Your task to perform on an android device: change text size in settings app Image 0: 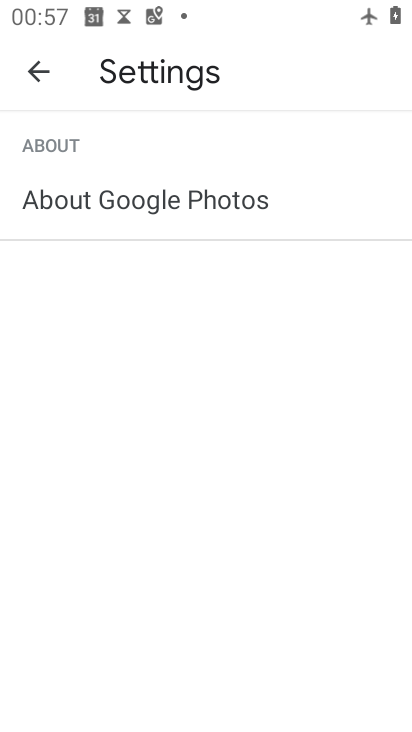
Step 0: press home button
Your task to perform on an android device: change text size in settings app Image 1: 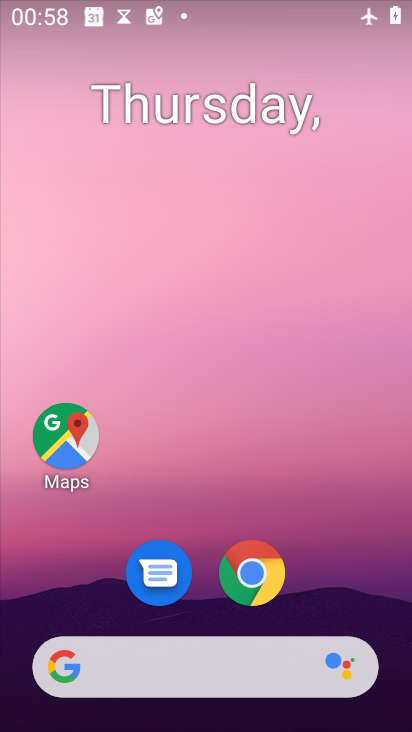
Step 1: drag from (356, 549) to (354, 303)
Your task to perform on an android device: change text size in settings app Image 2: 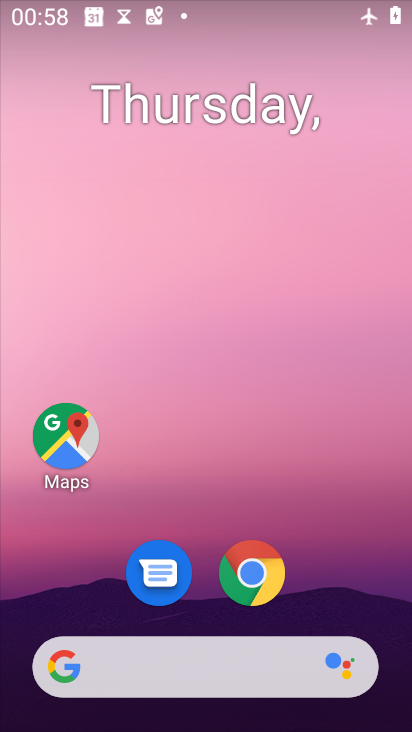
Step 2: drag from (311, 470) to (320, 103)
Your task to perform on an android device: change text size in settings app Image 3: 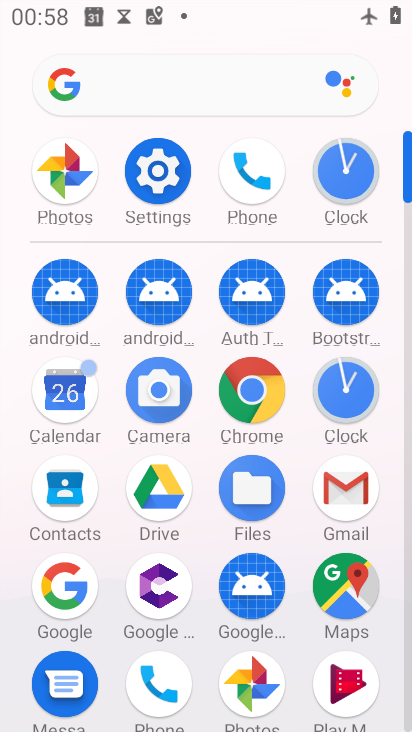
Step 3: click (145, 170)
Your task to perform on an android device: change text size in settings app Image 4: 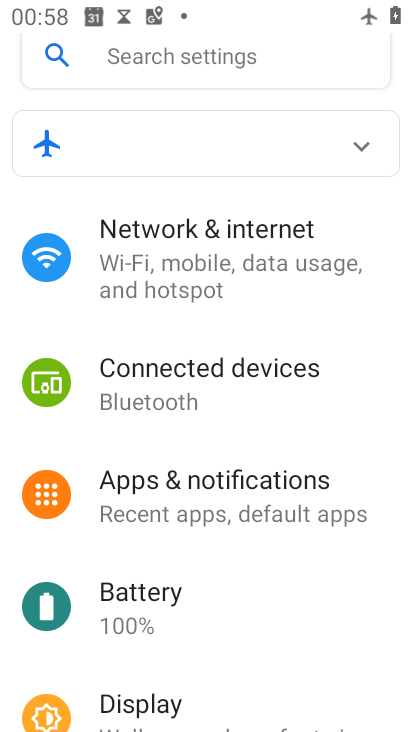
Step 4: drag from (236, 595) to (255, 228)
Your task to perform on an android device: change text size in settings app Image 5: 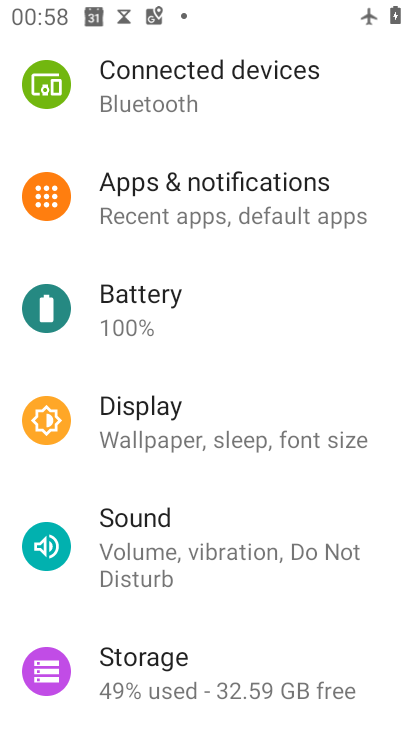
Step 5: drag from (249, 618) to (266, 169)
Your task to perform on an android device: change text size in settings app Image 6: 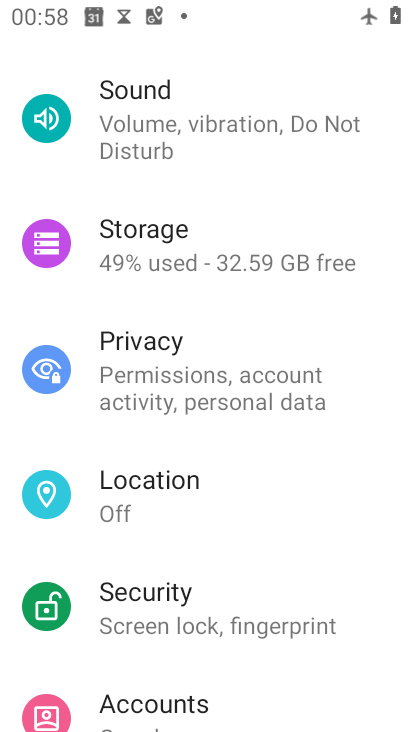
Step 6: drag from (235, 621) to (264, 241)
Your task to perform on an android device: change text size in settings app Image 7: 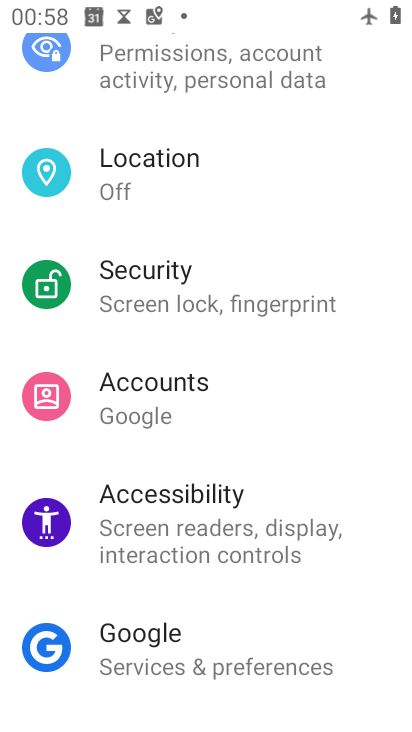
Step 7: drag from (219, 618) to (221, 382)
Your task to perform on an android device: change text size in settings app Image 8: 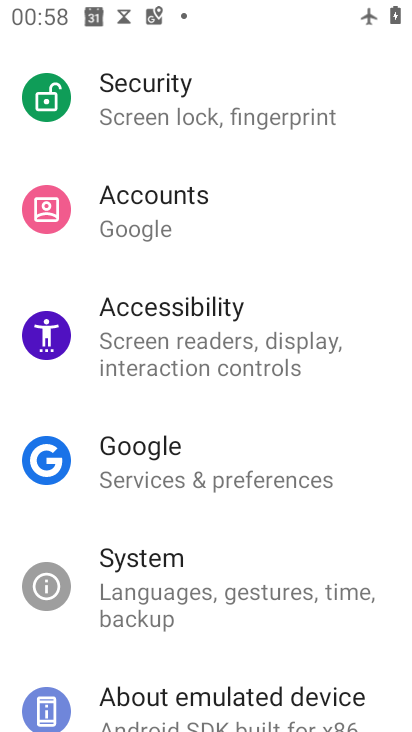
Step 8: drag from (190, 685) to (206, 498)
Your task to perform on an android device: change text size in settings app Image 9: 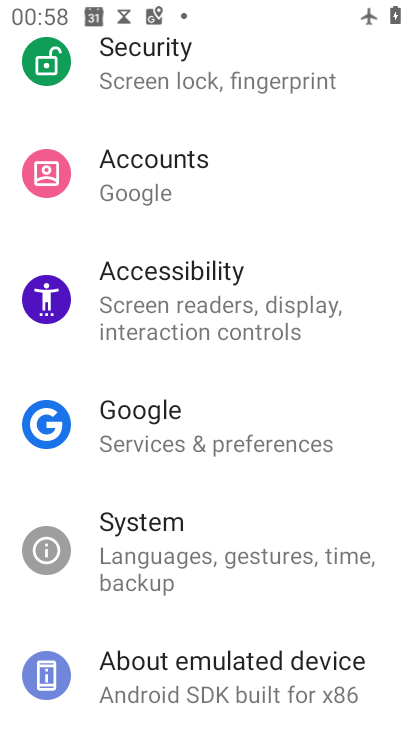
Step 9: click (188, 541)
Your task to perform on an android device: change text size in settings app Image 10: 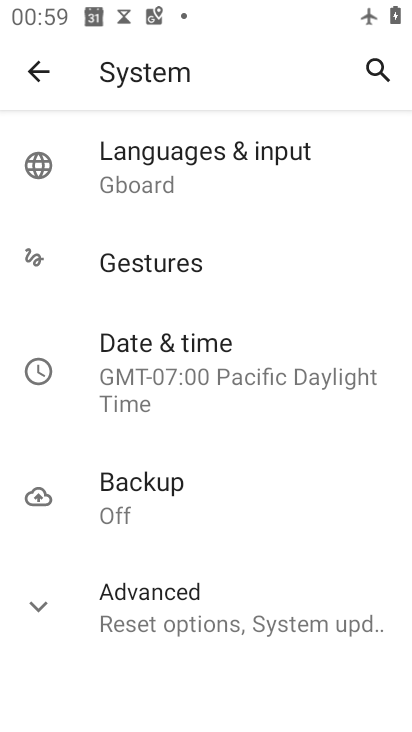
Step 10: press back button
Your task to perform on an android device: change text size in settings app Image 11: 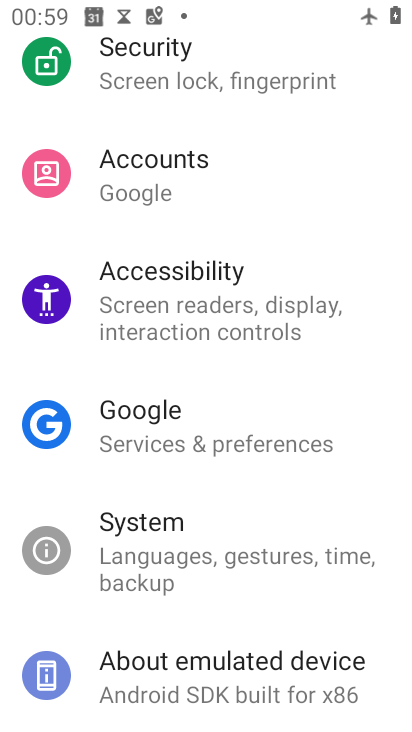
Step 11: click (151, 300)
Your task to perform on an android device: change text size in settings app Image 12: 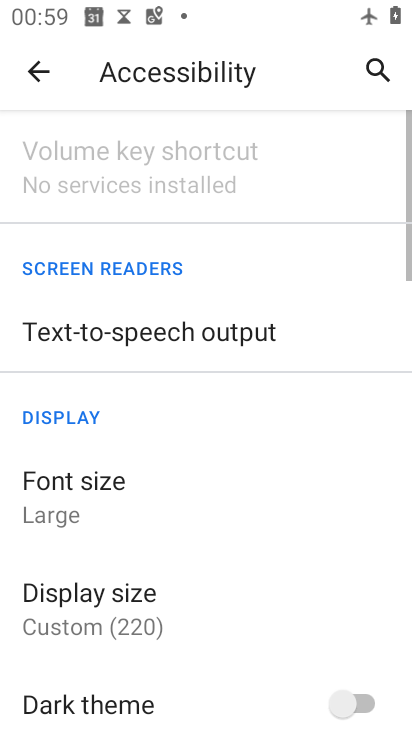
Step 12: click (96, 493)
Your task to perform on an android device: change text size in settings app Image 13: 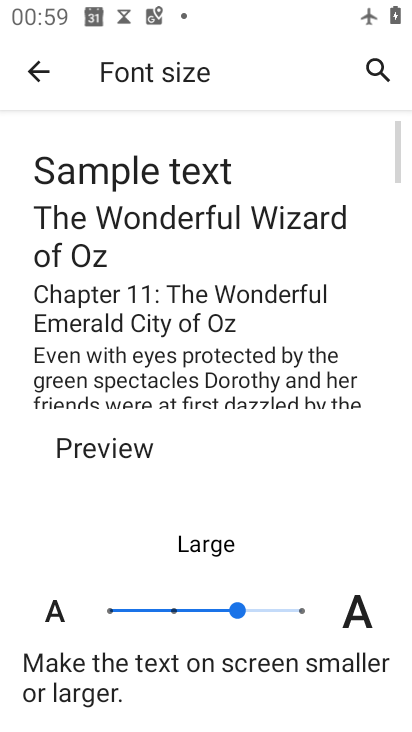
Step 13: click (182, 606)
Your task to perform on an android device: change text size in settings app Image 14: 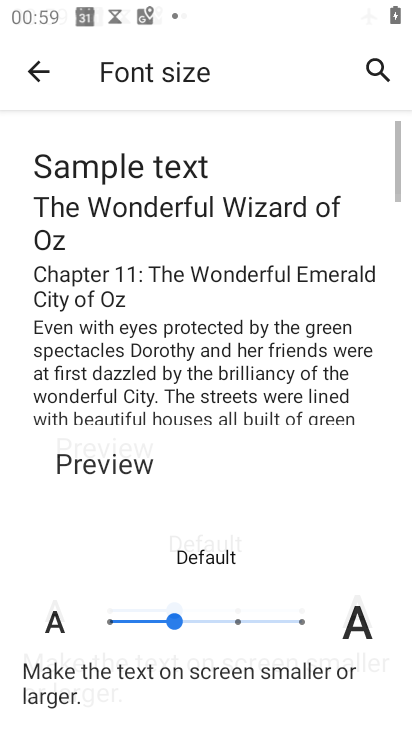
Step 14: task complete